Your task to perform on an android device: turn on priority inbox in the gmail app Image 0: 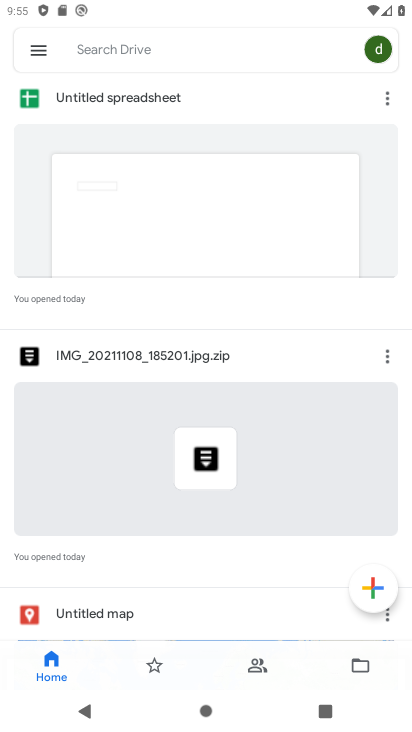
Step 0: press home button
Your task to perform on an android device: turn on priority inbox in the gmail app Image 1: 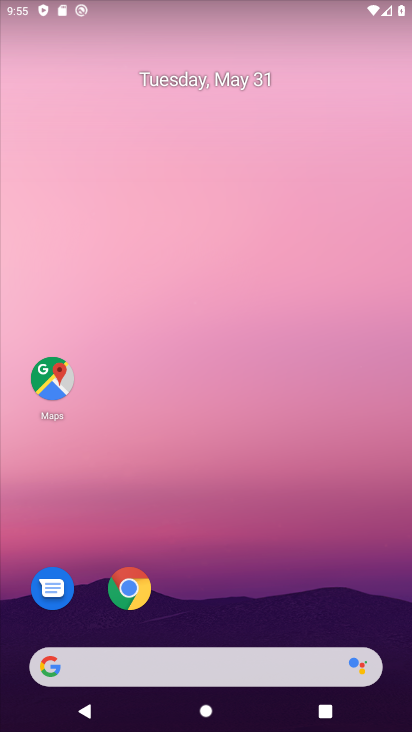
Step 1: drag from (297, 589) to (287, 224)
Your task to perform on an android device: turn on priority inbox in the gmail app Image 2: 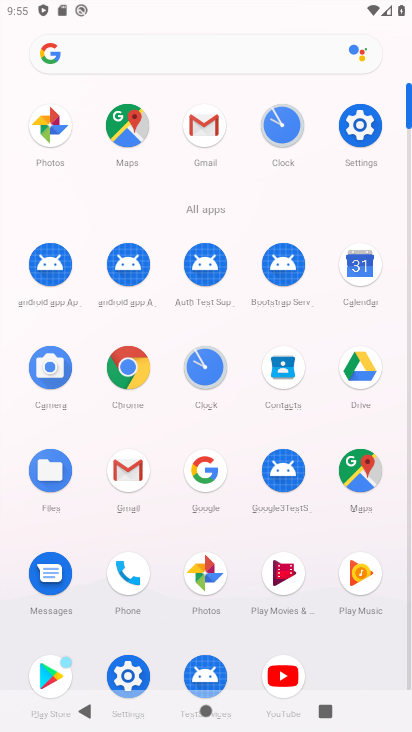
Step 2: click (202, 123)
Your task to perform on an android device: turn on priority inbox in the gmail app Image 3: 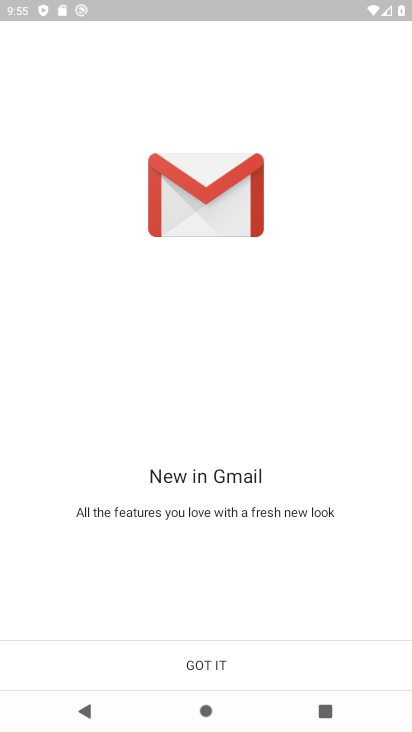
Step 3: click (217, 664)
Your task to perform on an android device: turn on priority inbox in the gmail app Image 4: 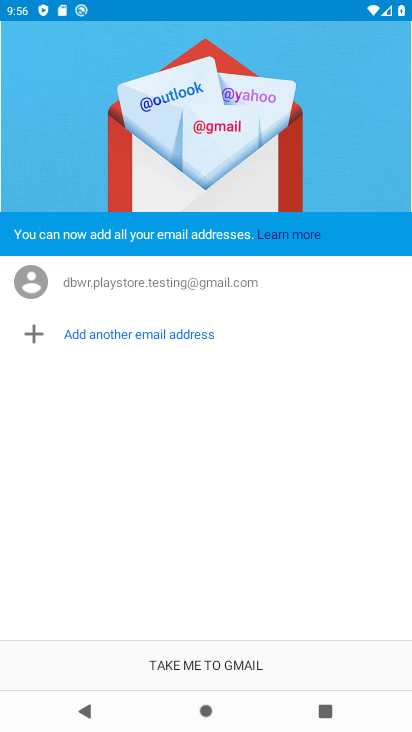
Step 4: click (217, 664)
Your task to perform on an android device: turn on priority inbox in the gmail app Image 5: 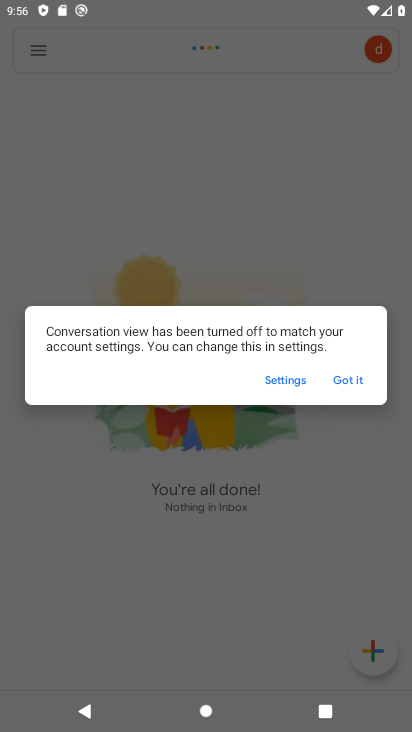
Step 5: click (341, 383)
Your task to perform on an android device: turn on priority inbox in the gmail app Image 6: 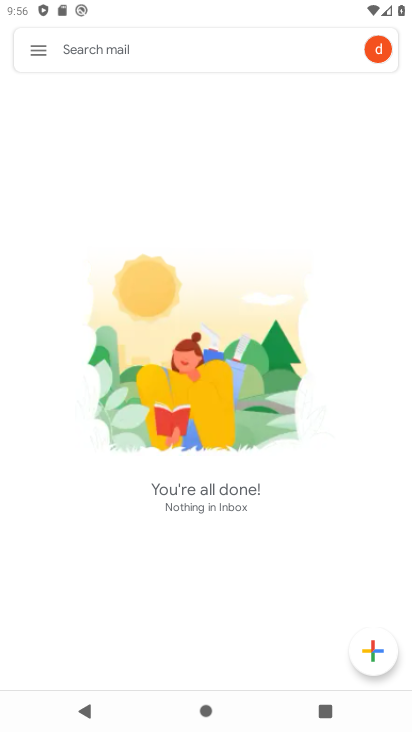
Step 6: click (39, 51)
Your task to perform on an android device: turn on priority inbox in the gmail app Image 7: 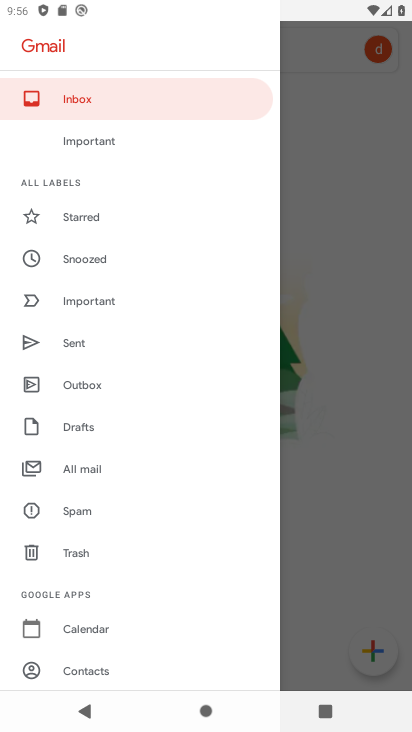
Step 7: drag from (81, 361) to (106, 304)
Your task to perform on an android device: turn on priority inbox in the gmail app Image 8: 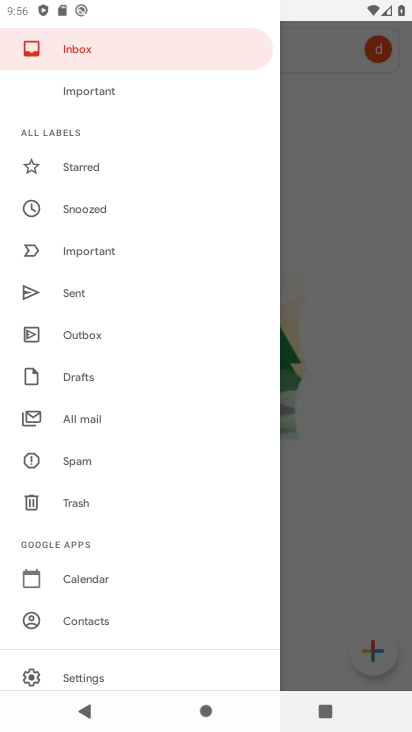
Step 8: drag from (69, 436) to (91, 385)
Your task to perform on an android device: turn on priority inbox in the gmail app Image 9: 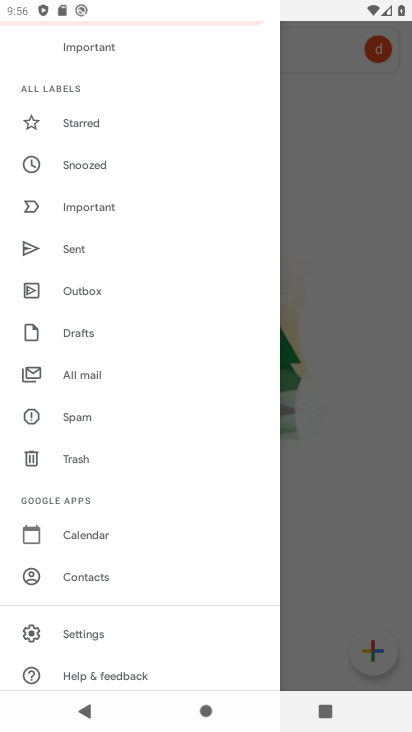
Step 9: drag from (86, 547) to (104, 490)
Your task to perform on an android device: turn on priority inbox in the gmail app Image 10: 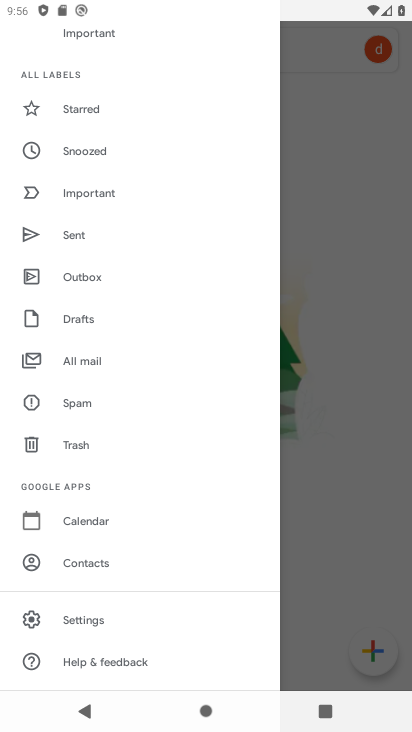
Step 10: click (92, 617)
Your task to perform on an android device: turn on priority inbox in the gmail app Image 11: 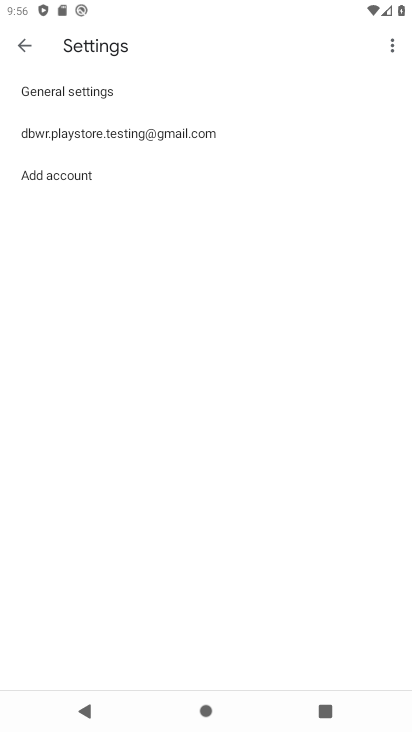
Step 11: click (128, 136)
Your task to perform on an android device: turn on priority inbox in the gmail app Image 12: 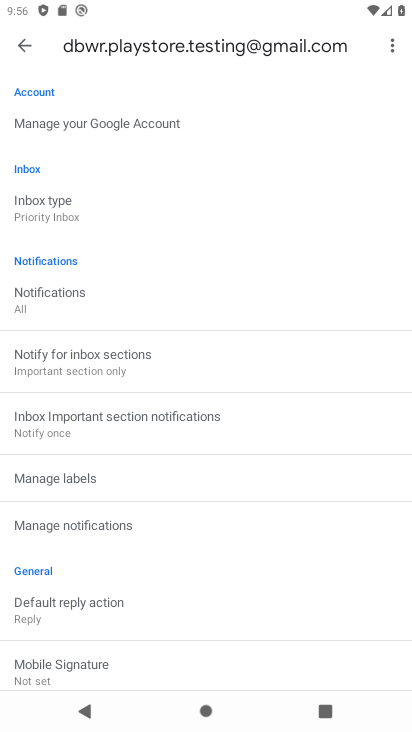
Step 12: click (52, 222)
Your task to perform on an android device: turn on priority inbox in the gmail app Image 13: 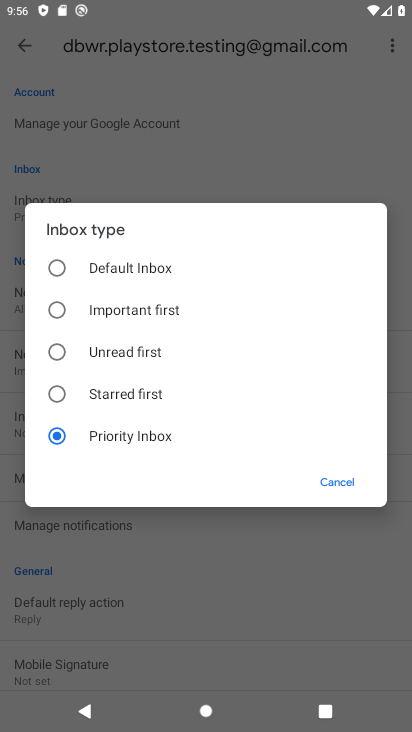
Step 13: click (51, 442)
Your task to perform on an android device: turn on priority inbox in the gmail app Image 14: 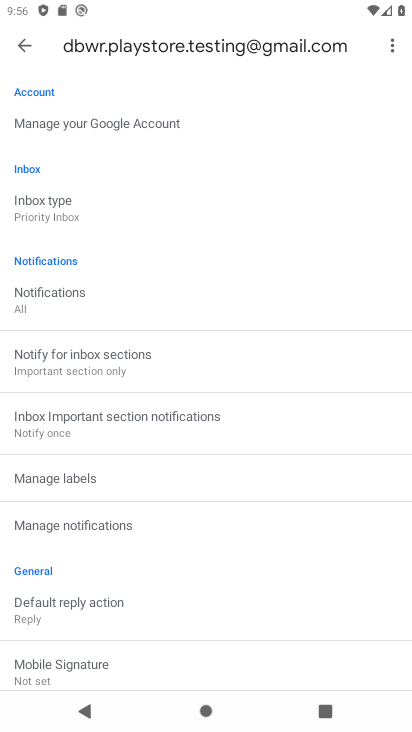
Step 14: task complete